Your task to perform on an android device: Search for "dell xps" on walmart, select the first entry, add it to the cart, then select checkout. Image 0: 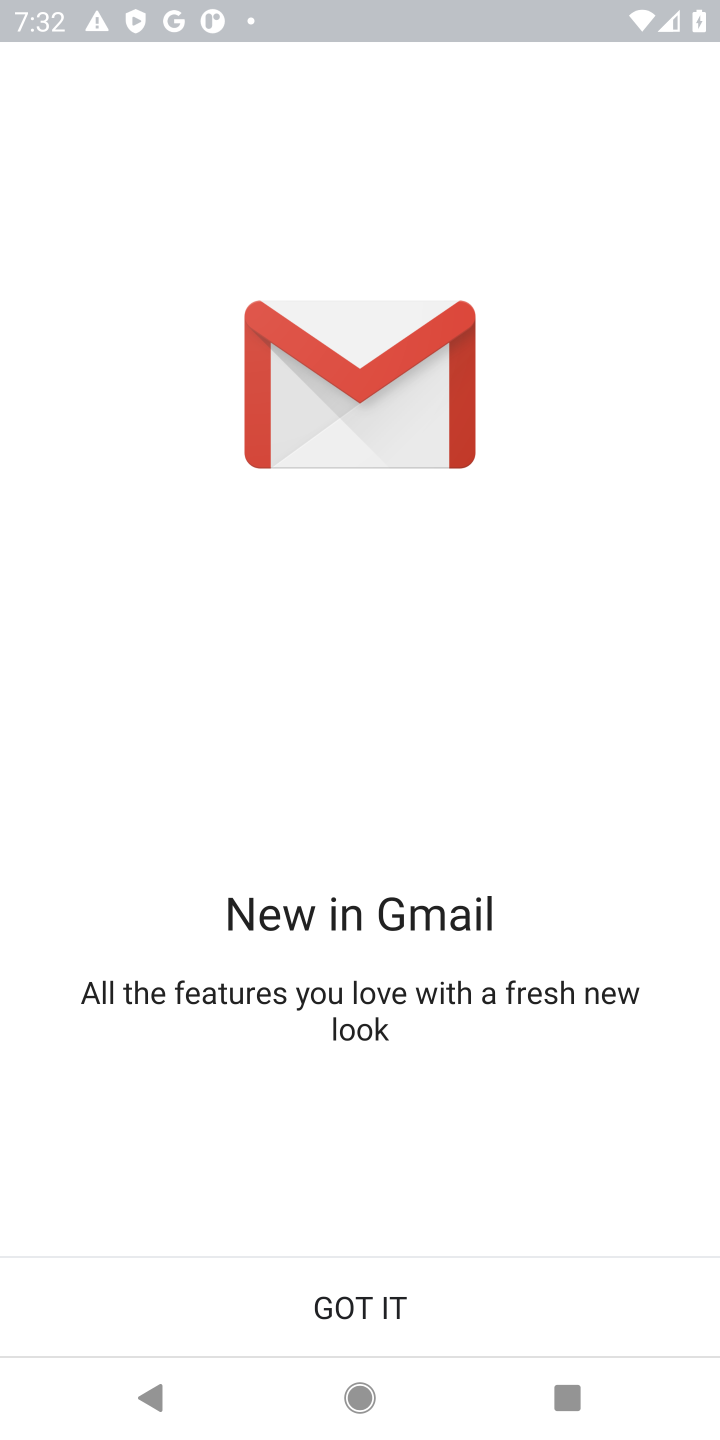
Step 0: press home button
Your task to perform on an android device: Search for "dell xps" on walmart, select the first entry, add it to the cart, then select checkout. Image 1: 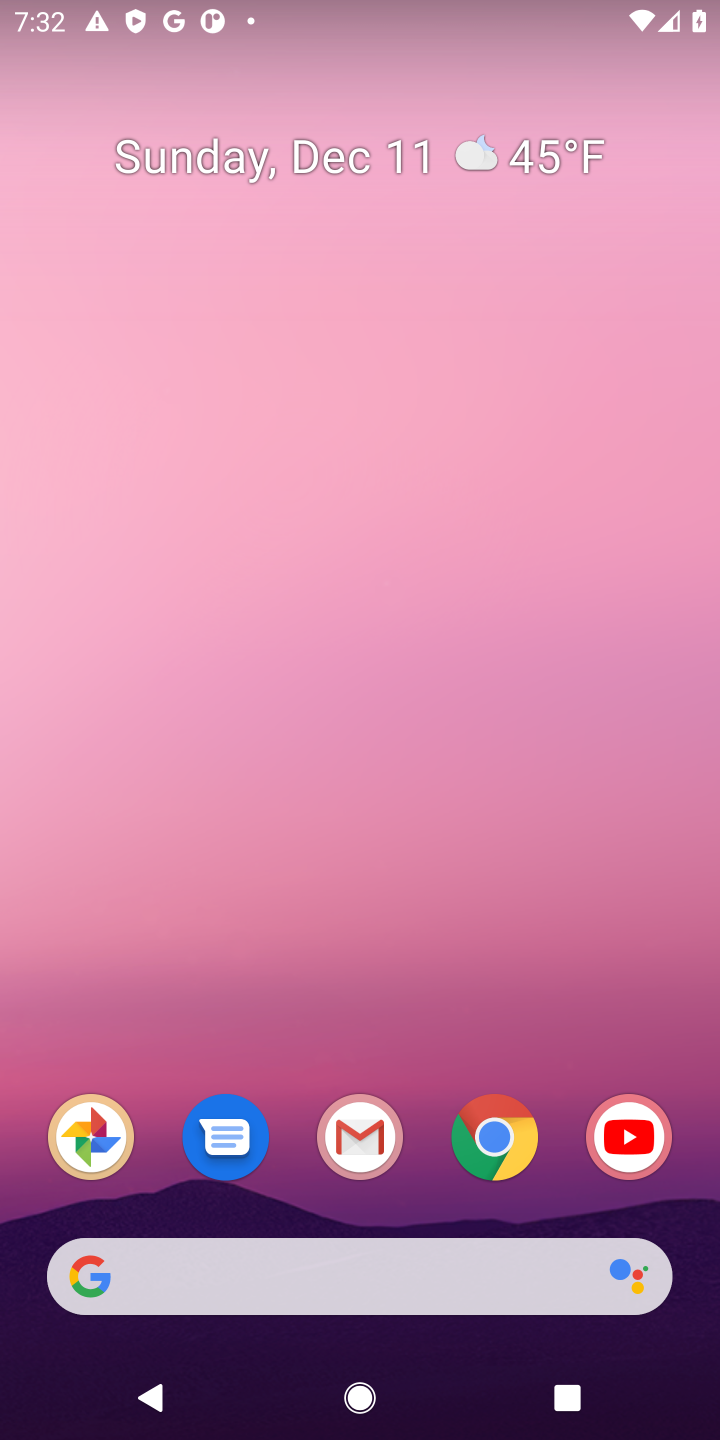
Step 1: click (507, 1148)
Your task to perform on an android device: Search for "dell xps" on walmart, select the first entry, add it to the cart, then select checkout. Image 2: 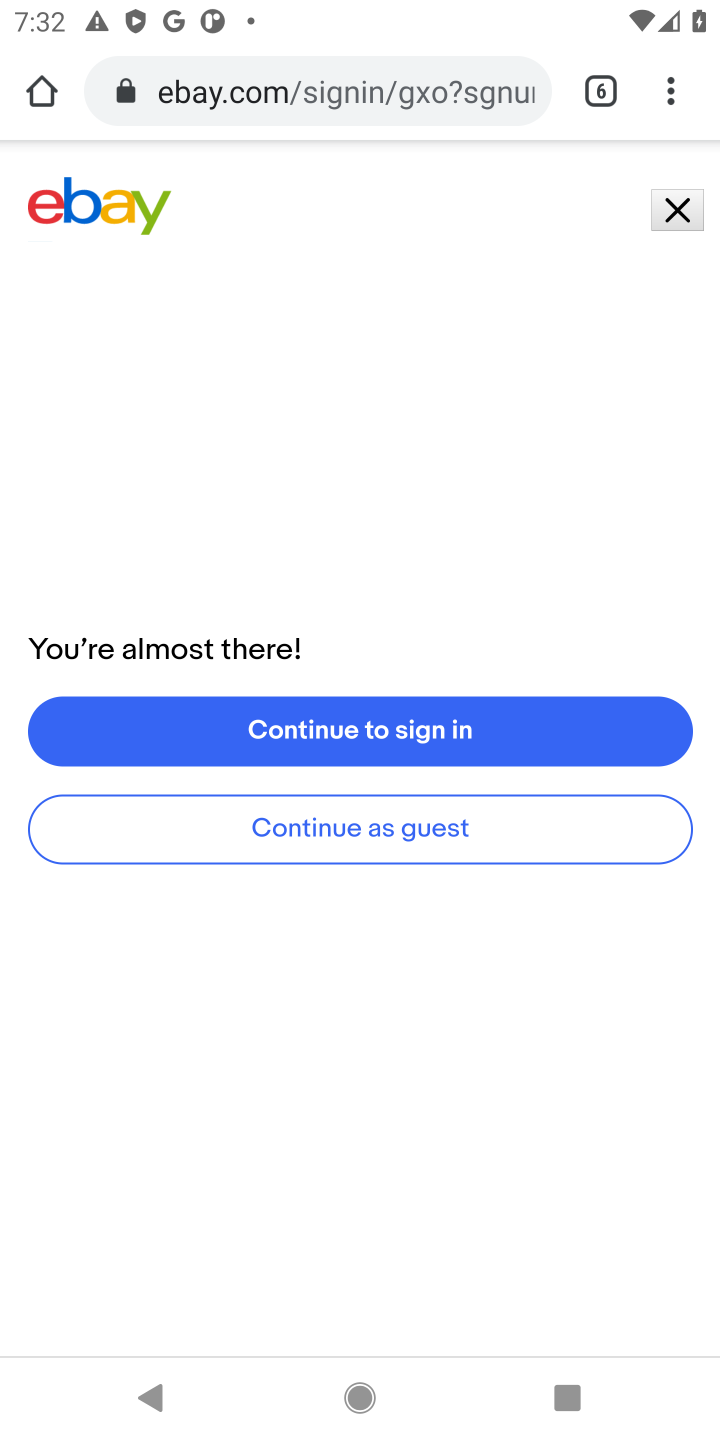
Step 2: click (308, 80)
Your task to perform on an android device: Search for "dell xps" on walmart, select the first entry, add it to the cart, then select checkout. Image 3: 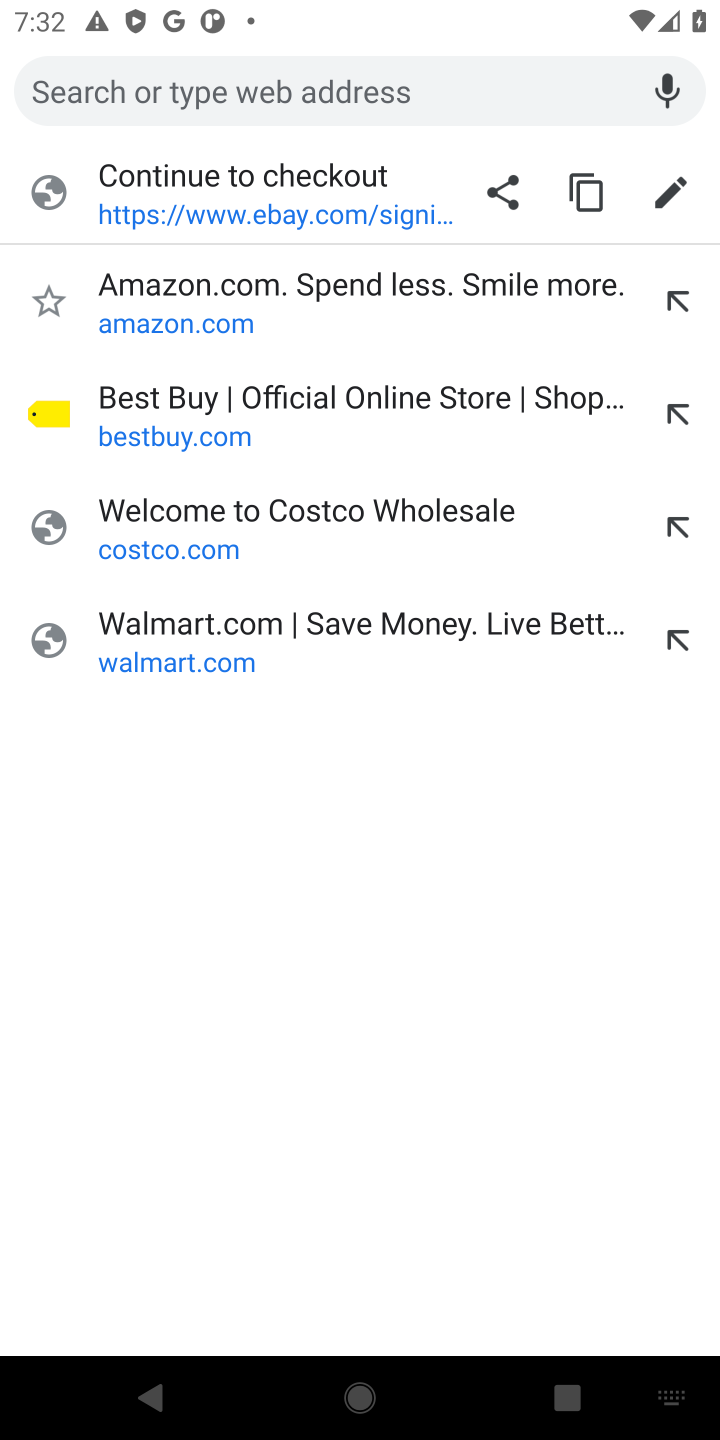
Step 3: click (184, 616)
Your task to perform on an android device: Search for "dell xps" on walmart, select the first entry, add it to the cart, then select checkout. Image 4: 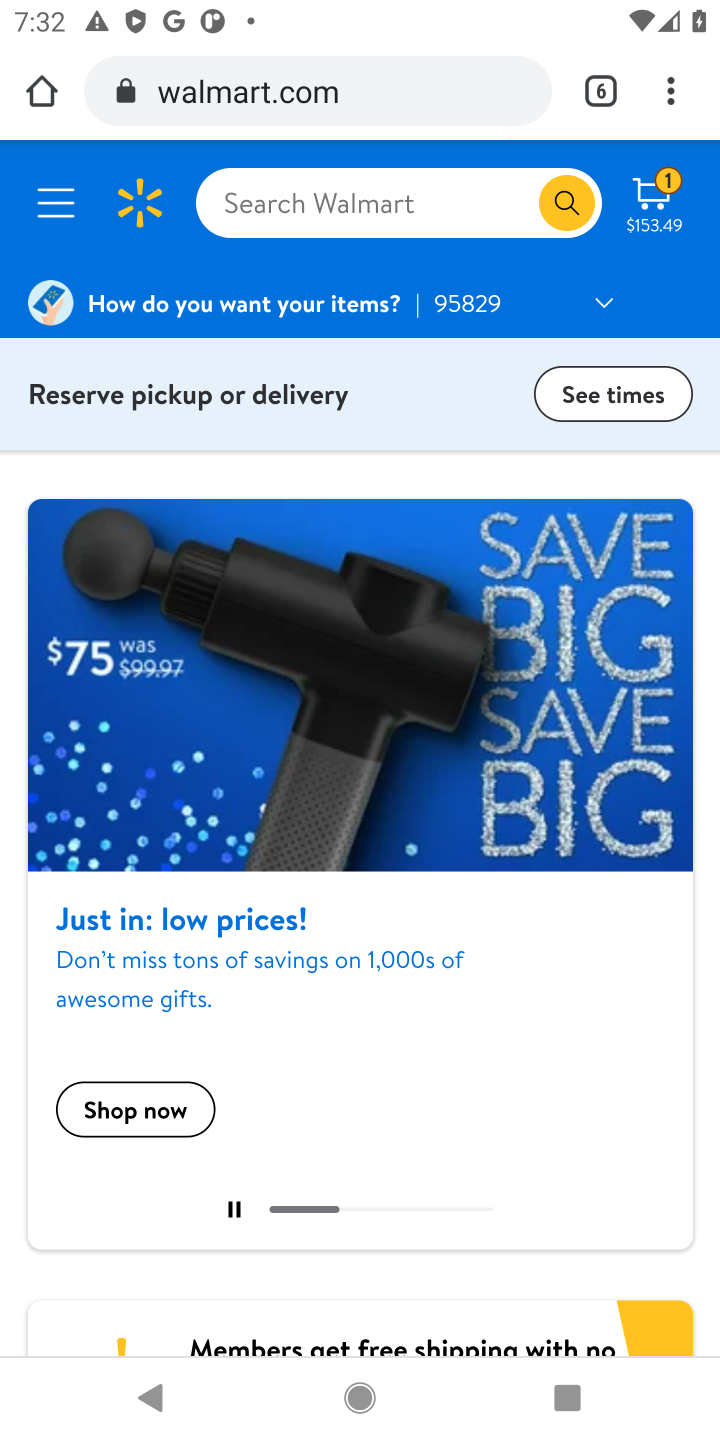
Step 4: click (372, 199)
Your task to perform on an android device: Search for "dell xps" on walmart, select the first entry, add it to the cart, then select checkout. Image 5: 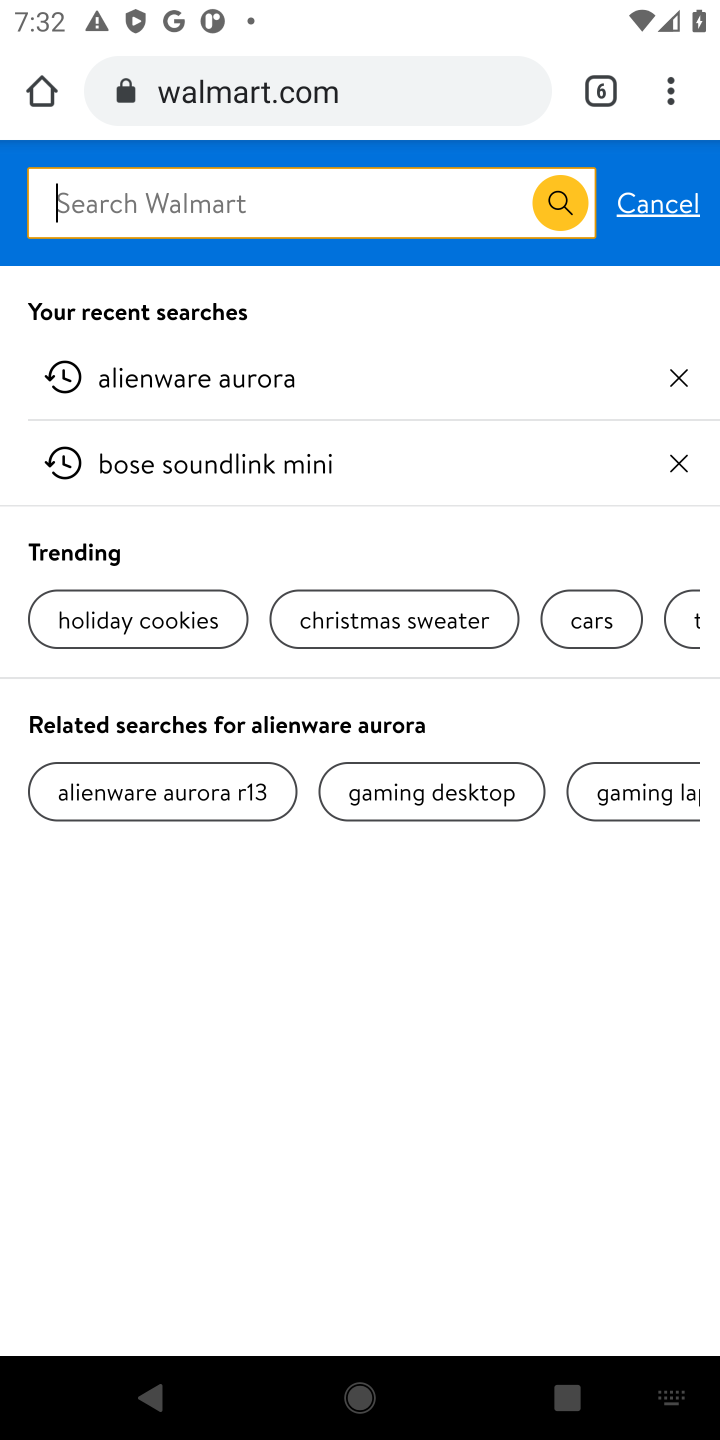
Step 5: type "dell xps"
Your task to perform on an android device: Search for "dell xps" on walmart, select the first entry, add it to the cart, then select checkout. Image 6: 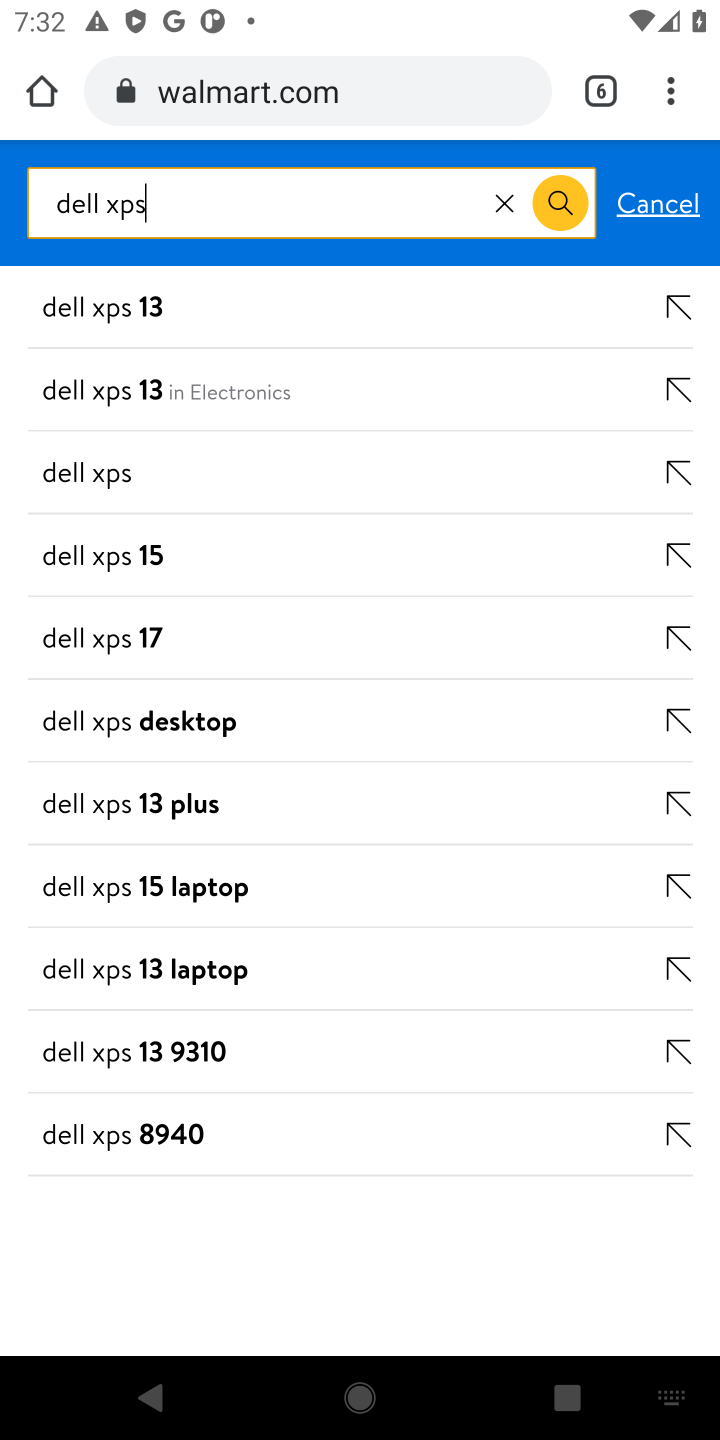
Step 6: click (99, 480)
Your task to perform on an android device: Search for "dell xps" on walmart, select the first entry, add it to the cart, then select checkout. Image 7: 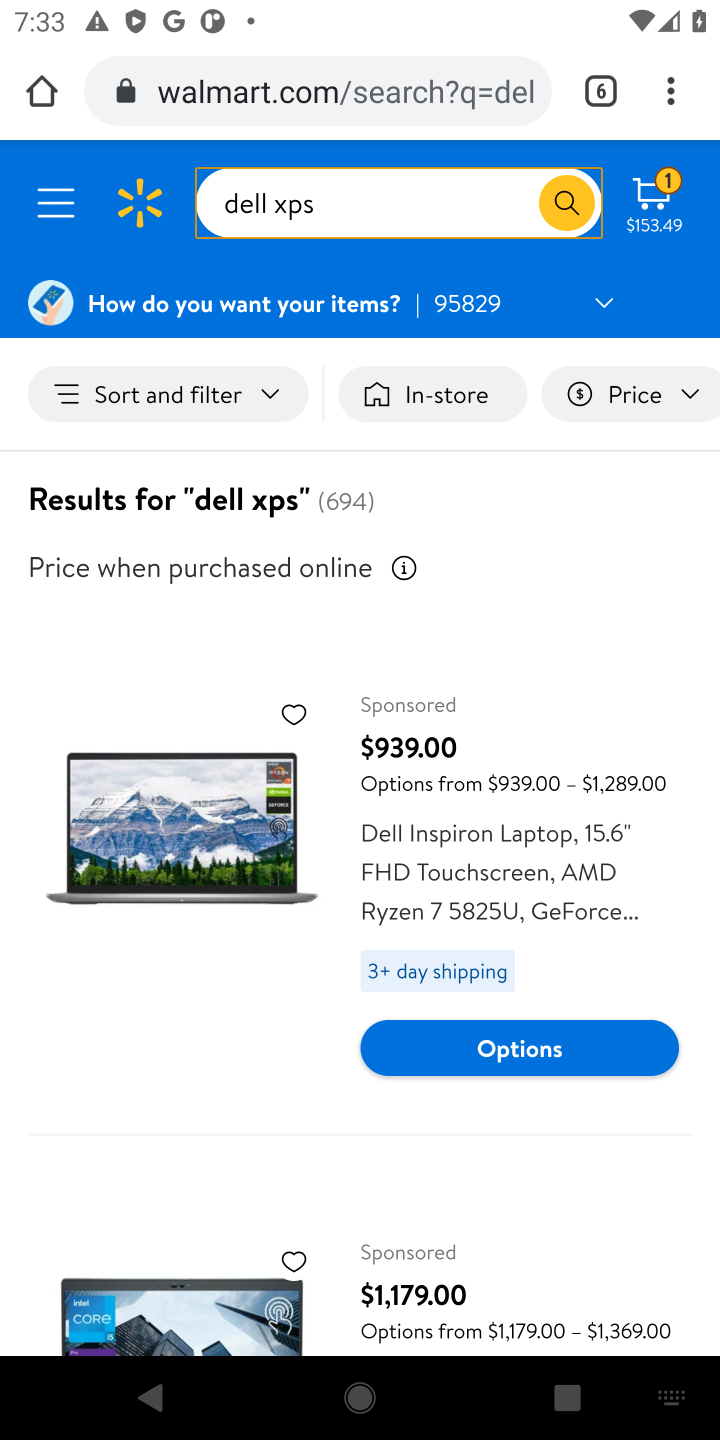
Step 7: drag from (107, 1137) to (148, 446)
Your task to perform on an android device: Search for "dell xps" on walmart, select the first entry, add it to the cart, then select checkout. Image 8: 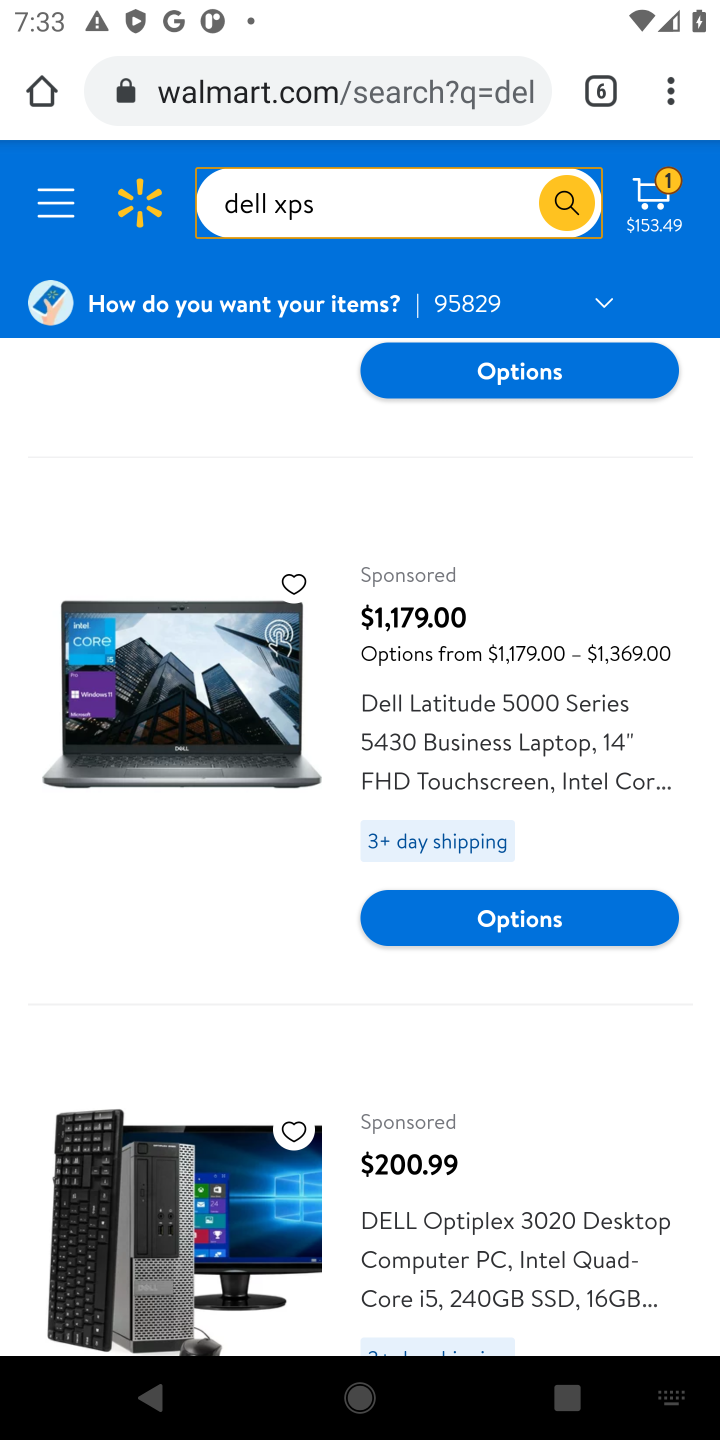
Step 8: click (422, 366)
Your task to perform on an android device: Search for "dell xps" on walmart, select the first entry, add it to the cart, then select checkout. Image 9: 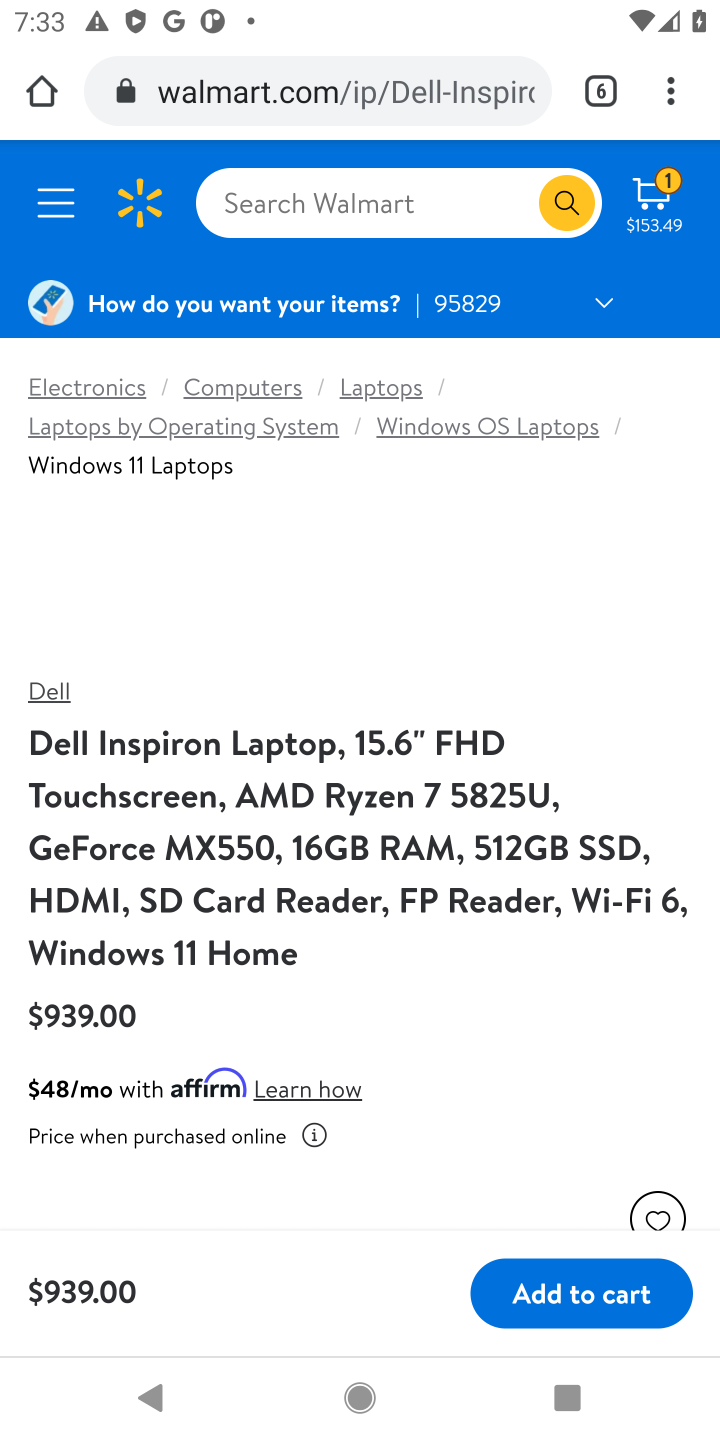
Step 9: task complete